Your task to perform on an android device: uninstall "File Manager" Image 0: 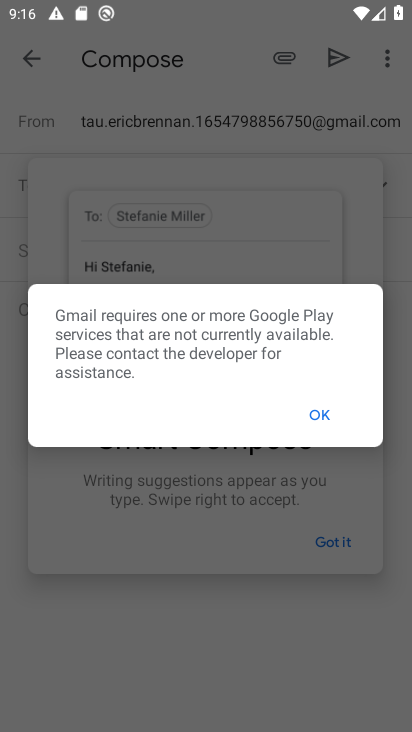
Step 0: press home button
Your task to perform on an android device: uninstall "File Manager" Image 1: 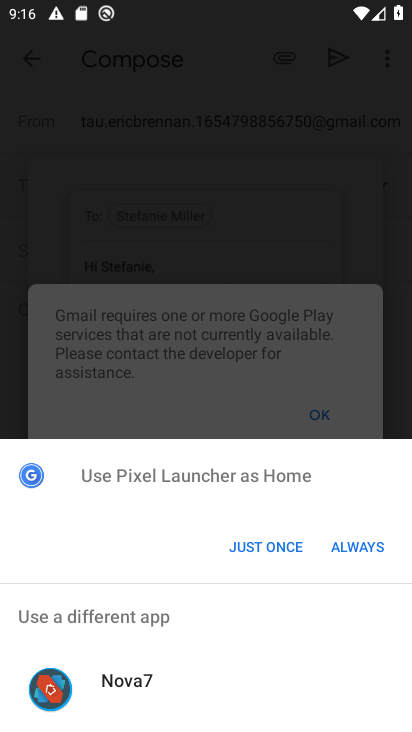
Step 1: click (278, 541)
Your task to perform on an android device: uninstall "File Manager" Image 2: 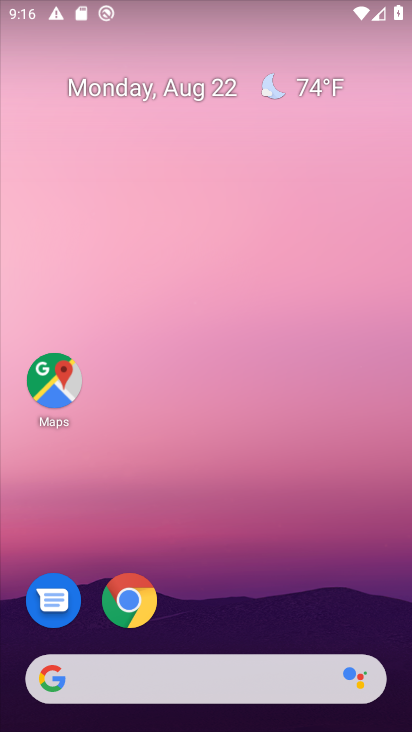
Step 2: drag from (233, 607) to (251, 105)
Your task to perform on an android device: uninstall "File Manager" Image 3: 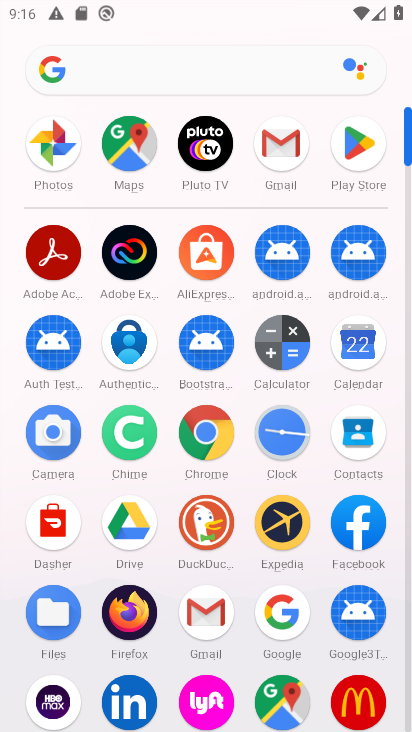
Step 3: click (361, 146)
Your task to perform on an android device: uninstall "File Manager" Image 4: 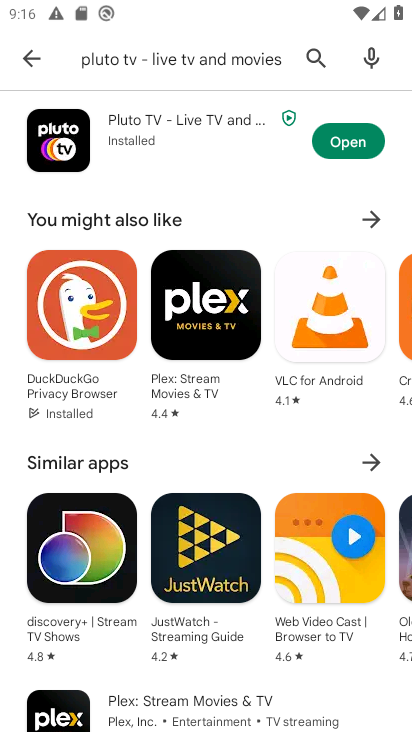
Step 4: click (307, 52)
Your task to perform on an android device: uninstall "File Manager" Image 5: 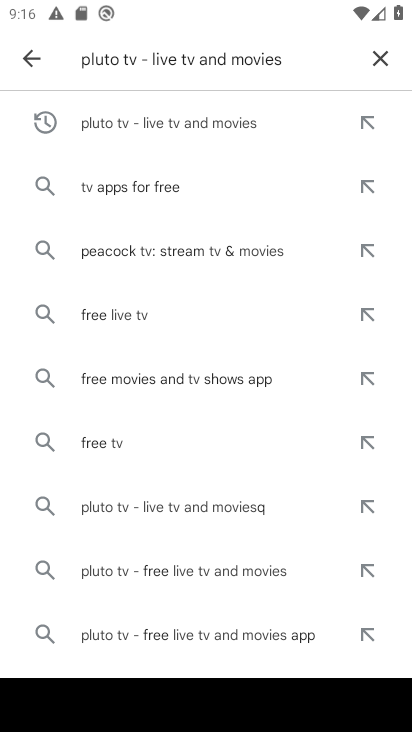
Step 5: click (373, 55)
Your task to perform on an android device: uninstall "File Manager" Image 6: 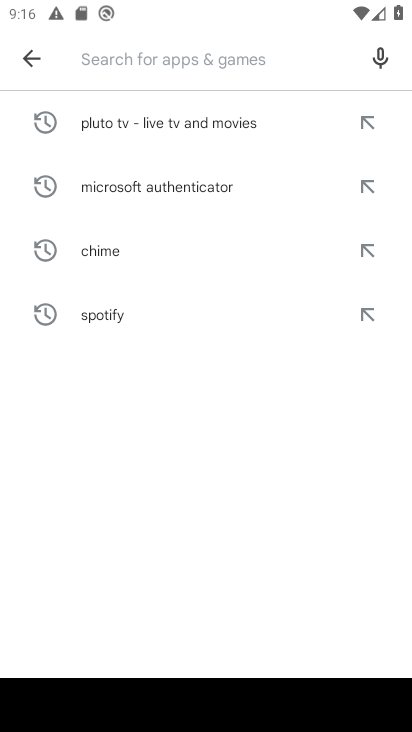
Step 6: type "File Manager"
Your task to perform on an android device: uninstall "File Manager" Image 7: 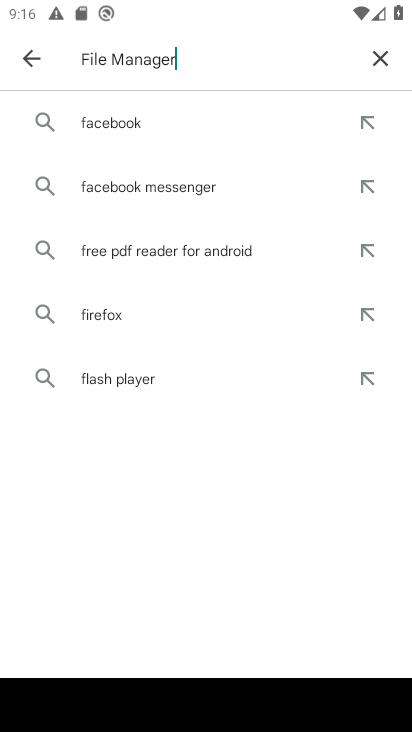
Step 7: type ""
Your task to perform on an android device: uninstall "File Manager" Image 8: 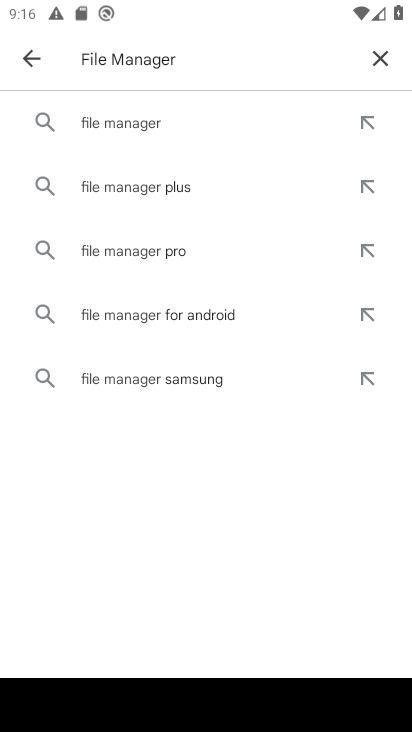
Step 8: click (162, 122)
Your task to perform on an android device: uninstall "File Manager" Image 9: 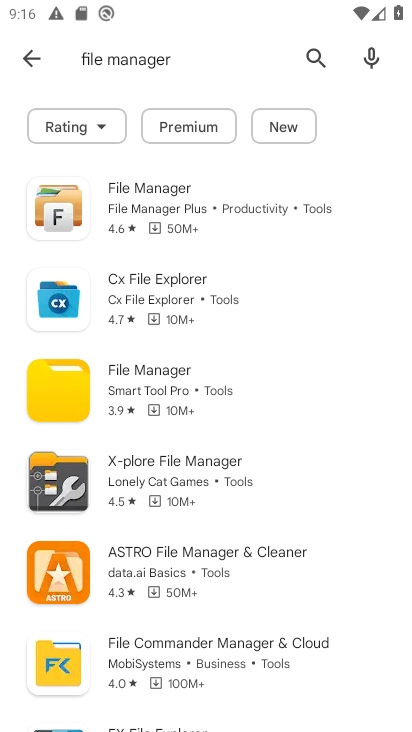
Step 9: click (203, 213)
Your task to perform on an android device: uninstall "File Manager" Image 10: 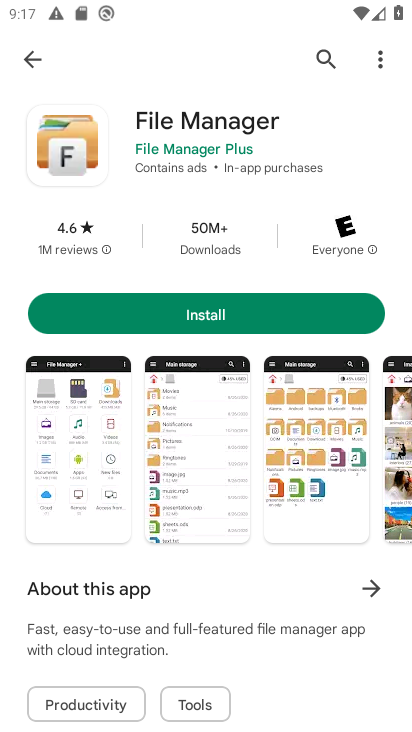
Step 10: task complete